Your task to perform on an android device: make emails show in primary in the gmail app Image 0: 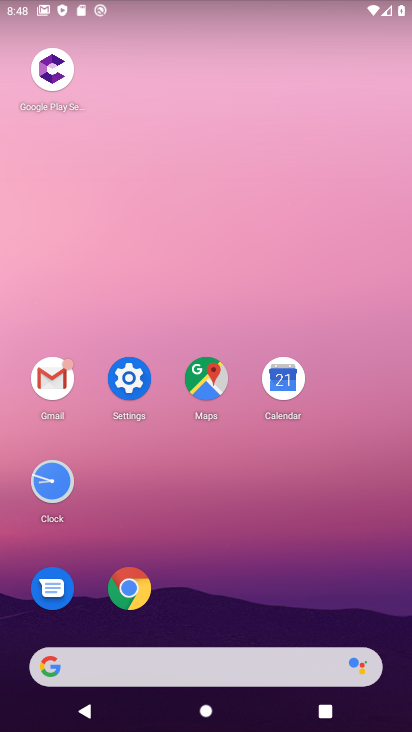
Step 0: click (41, 394)
Your task to perform on an android device: make emails show in primary in the gmail app Image 1: 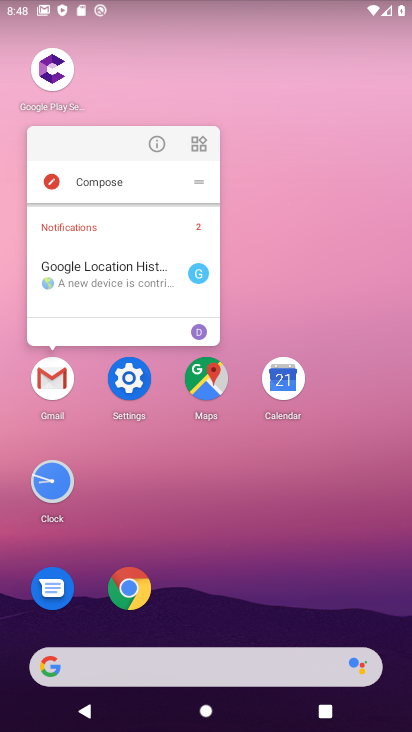
Step 1: click (51, 379)
Your task to perform on an android device: make emails show in primary in the gmail app Image 2: 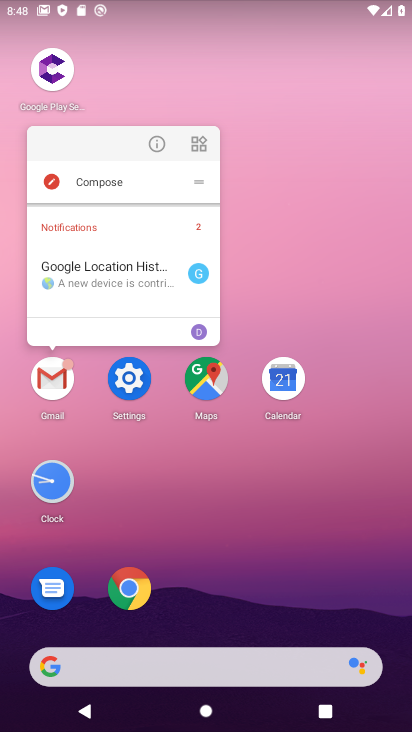
Step 2: click (51, 379)
Your task to perform on an android device: make emails show in primary in the gmail app Image 3: 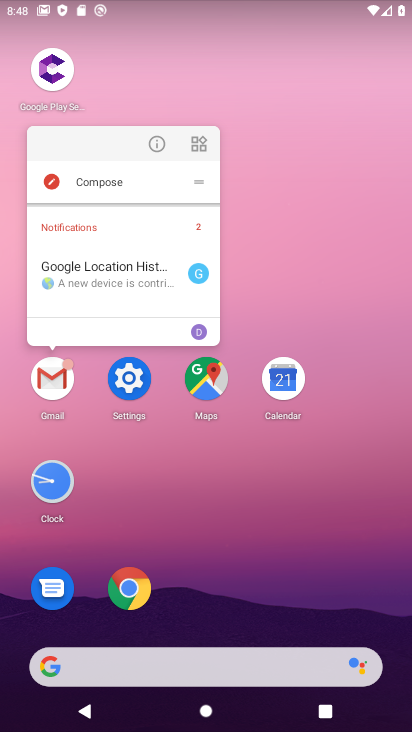
Step 3: click (51, 379)
Your task to perform on an android device: make emails show in primary in the gmail app Image 4: 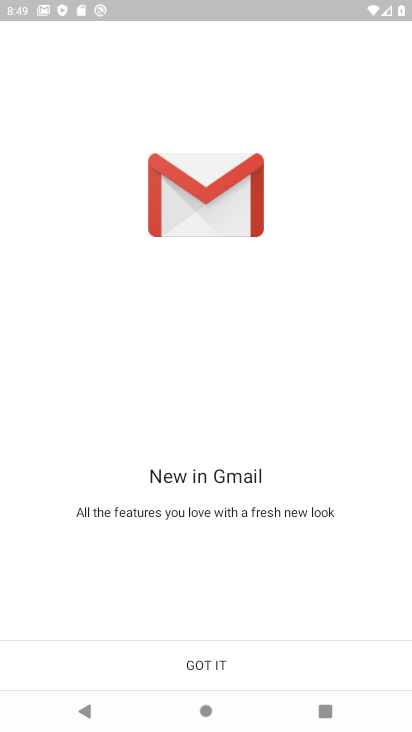
Step 4: click (206, 660)
Your task to perform on an android device: make emails show in primary in the gmail app Image 5: 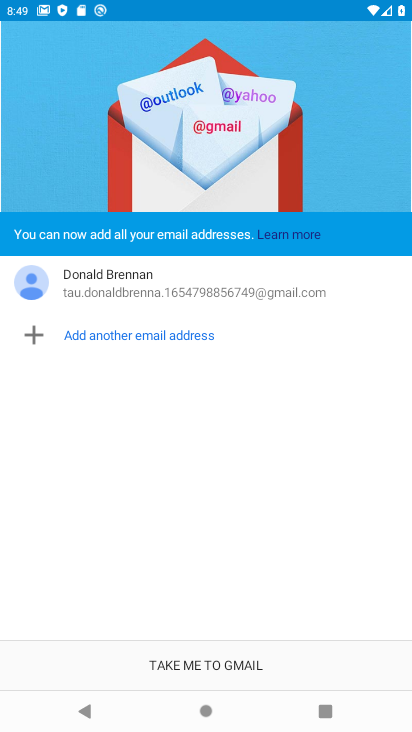
Step 5: click (206, 663)
Your task to perform on an android device: make emails show in primary in the gmail app Image 6: 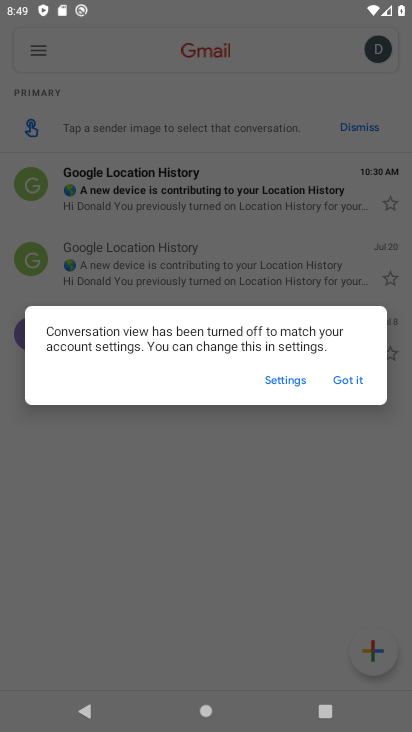
Step 6: click (356, 381)
Your task to perform on an android device: make emails show in primary in the gmail app Image 7: 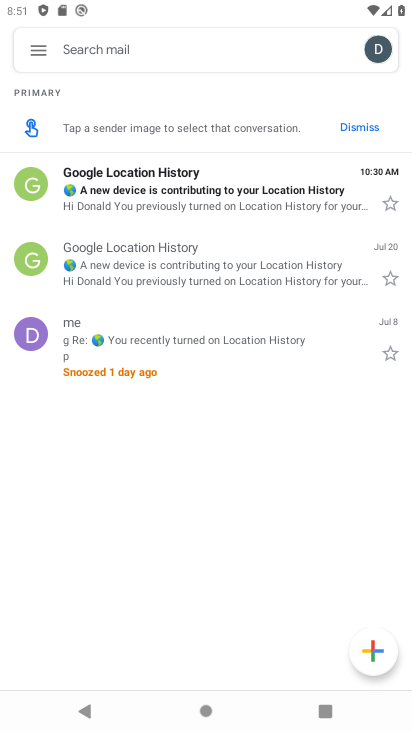
Step 7: task complete